Your task to perform on an android device: Do I have any events this weekend? Image 0: 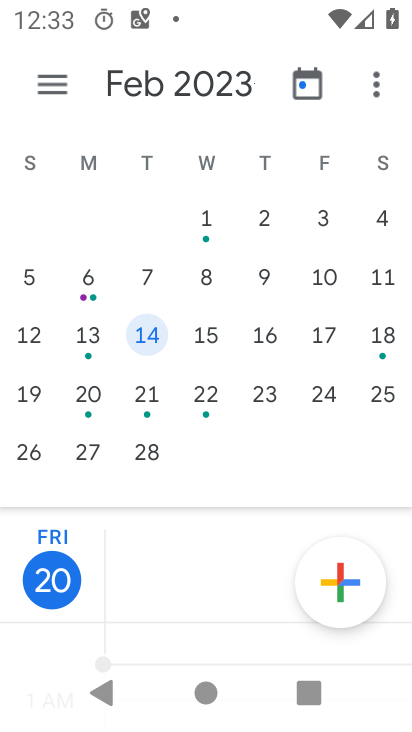
Step 0: press home button
Your task to perform on an android device: Do I have any events this weekend? Image 1: 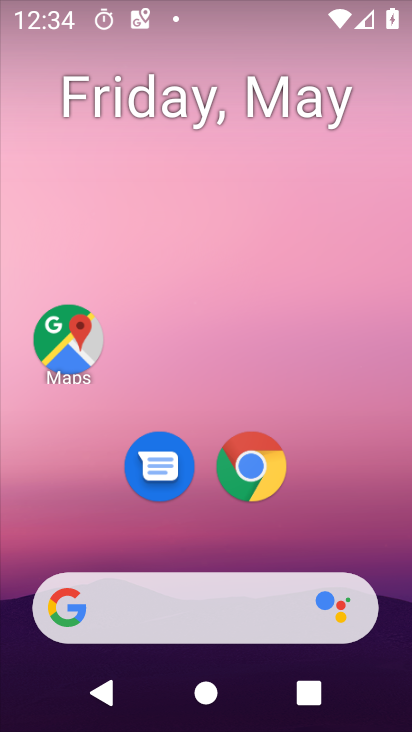
Step 1: drag from (400, 609) to (284, 148)
Your task to perform on an android device: Do I have any events this weekend? Image 2: 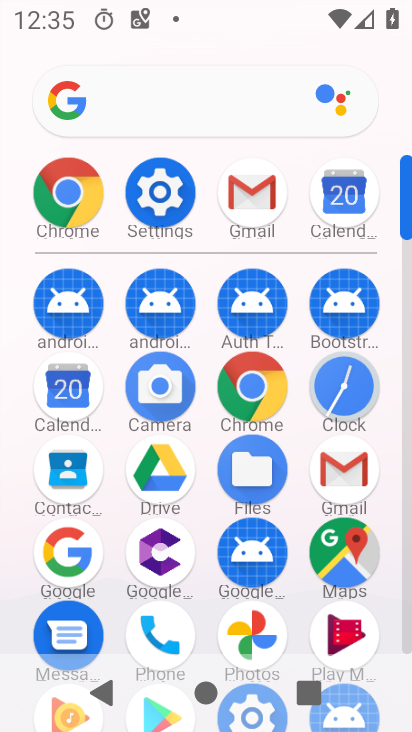
Step 2: click (352, 195)
Your task to perform on an android device: Do I have any events this weekend? Image 3: 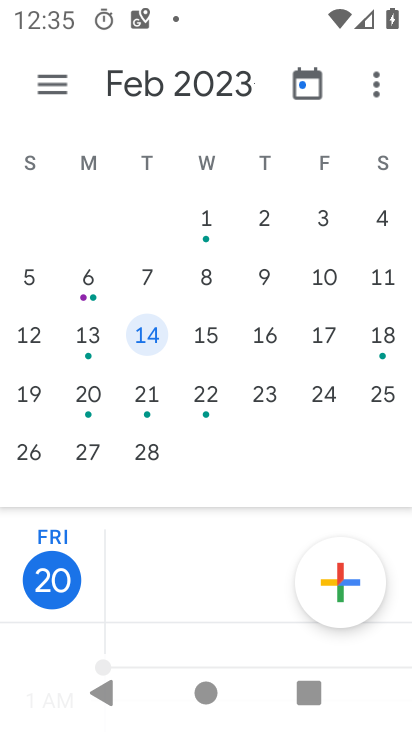
Step 3: click (52, 89)
Your task to perform on an android device: Do I have any events this weekend? Image 4: 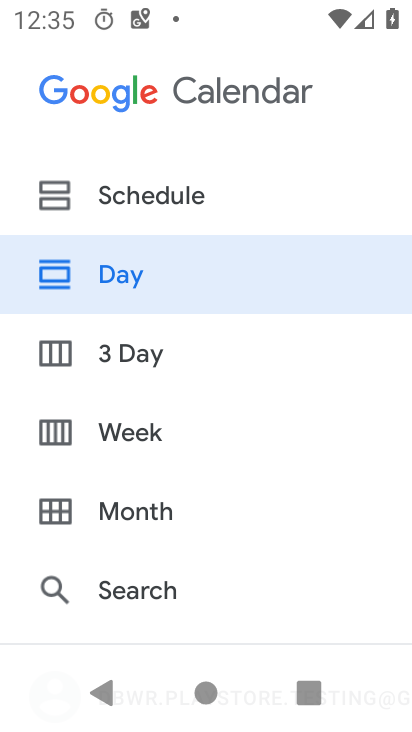
Step 4: click (134, 194)
Your task to perform on an android device: Do I have any events this weekend? Image 5: 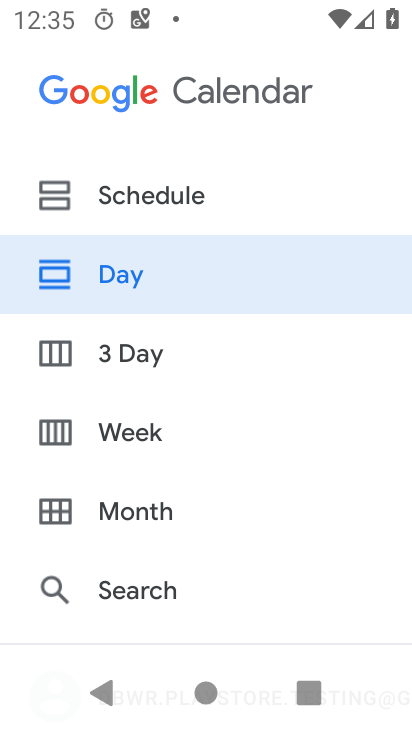
Step 5: click (134, 194)
Your task to perform on an android device: Do I have any events this weekend? Image 6: 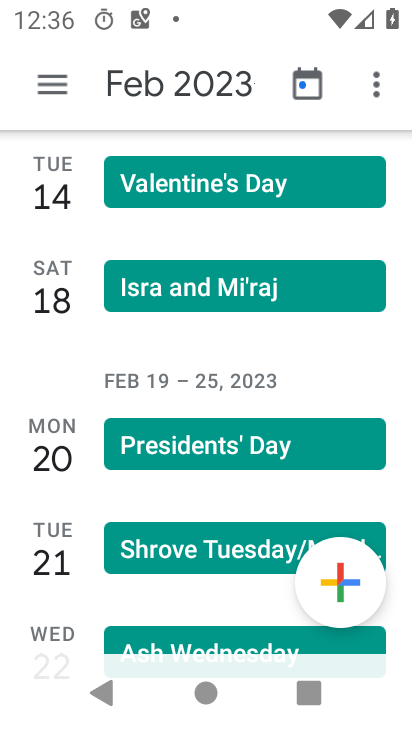
Step 6: task complete